Your task to perform on an android device: turn on improve location accuracy Image 0: 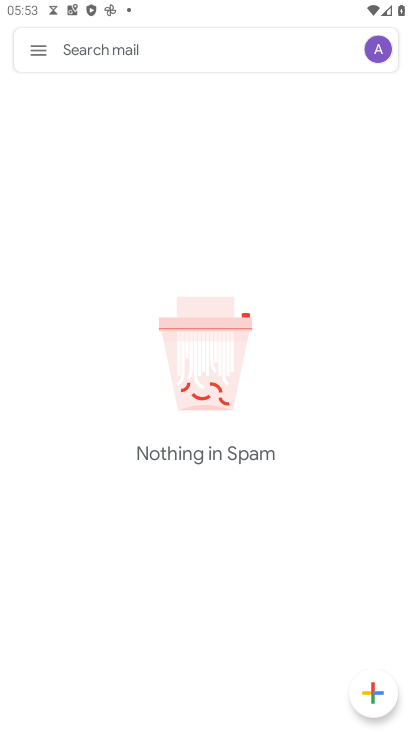
Step 0: press home button
Your task to perform on an android device: turn on improve location accuracy Image 1: 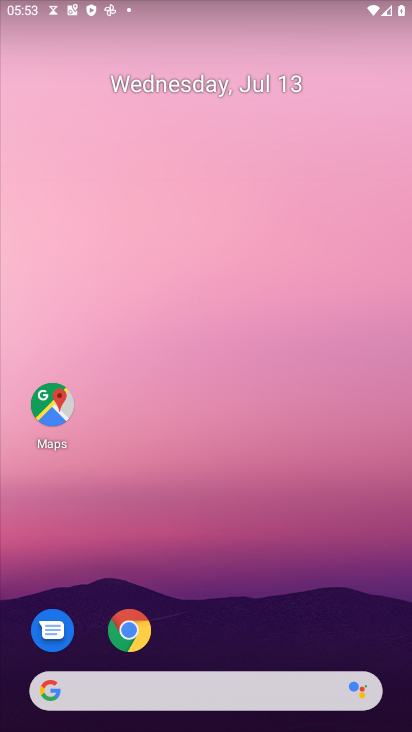
Step 1: drag from (137, 629) to (279, 73)
Your task to perform on an android device: turn on improve location accuracy Image 2: 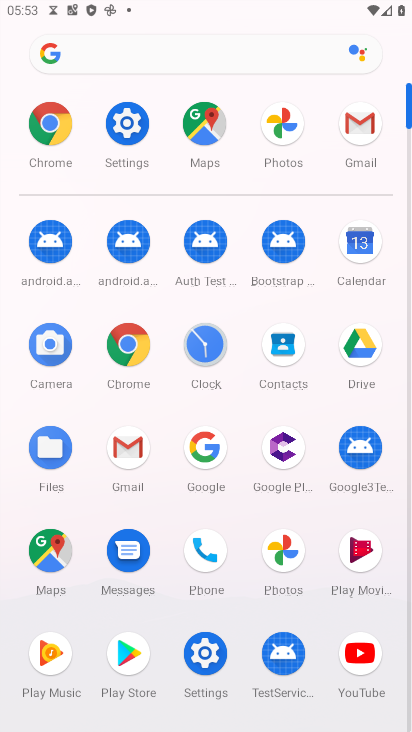
Step 2: click (125, 126)
Your task to perform on an android device: turn on improve location accuracy Image 3: 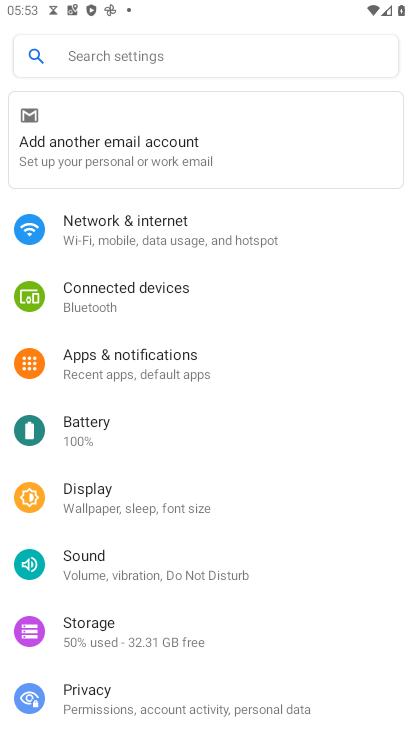
Step 3: drag from (125, 686) to (113, 355)
Your task to perform on an android device: turn on improve location accuracy Image 4: 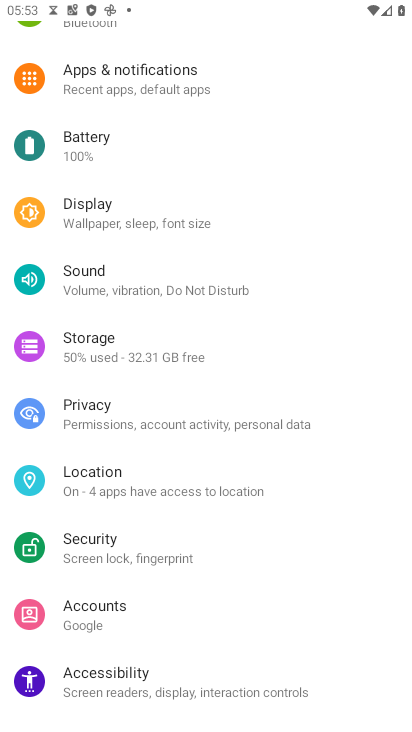
Step 4: click (111, 478)
Your task to perform on an android device: turn on improve location accuracy Image 5: 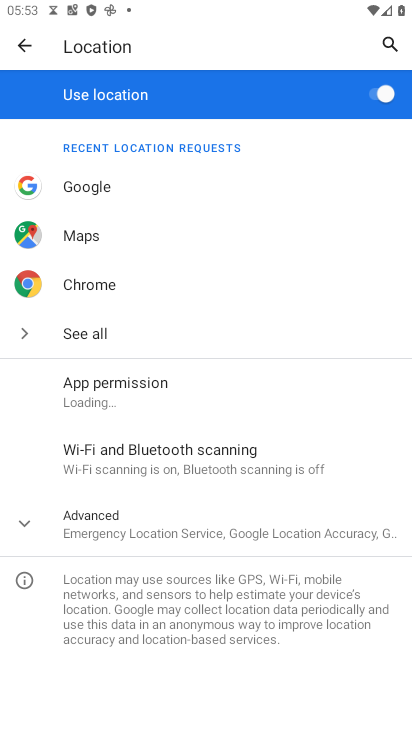
Step 5: click (94, 534)
Your task to perform on an android device: turn on improve location accuracy Image 6: 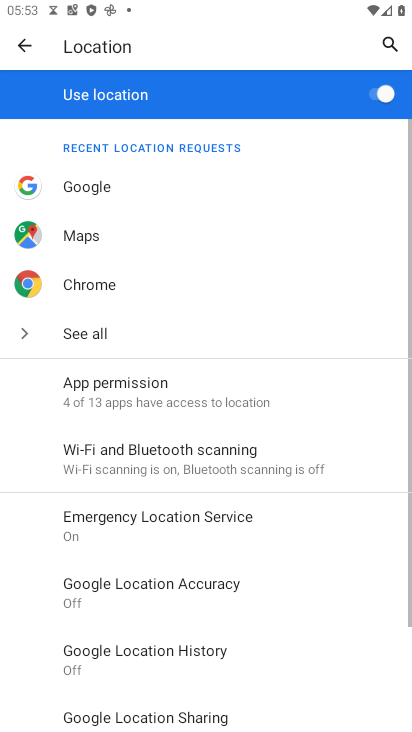
Step 6: click (215, 588)
Your task to perform on an android device: turn on improve location accuracy Image 7: 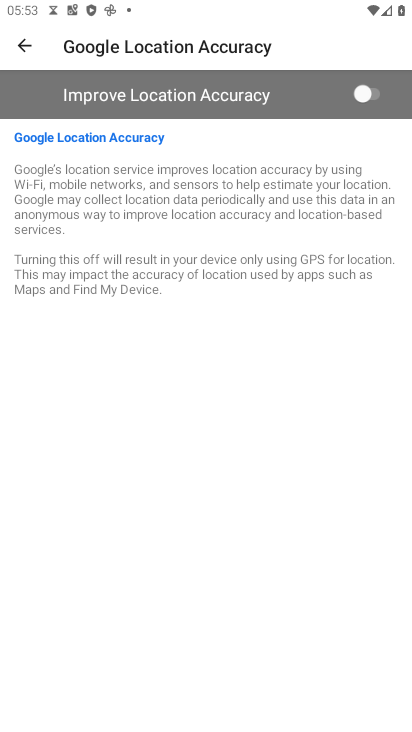
Step 7: click (364, 90)
Your task to perform on an android device: turn on improve location accuracy Image 8: 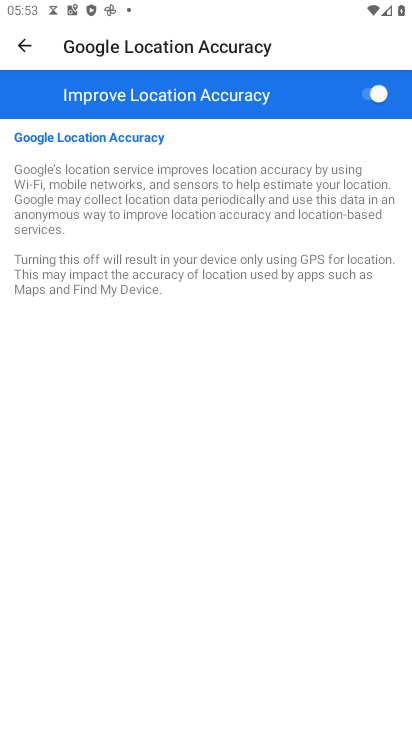
Step 8: task complete